Your task to perform on an android device: star an email in the gmail app Image 0: 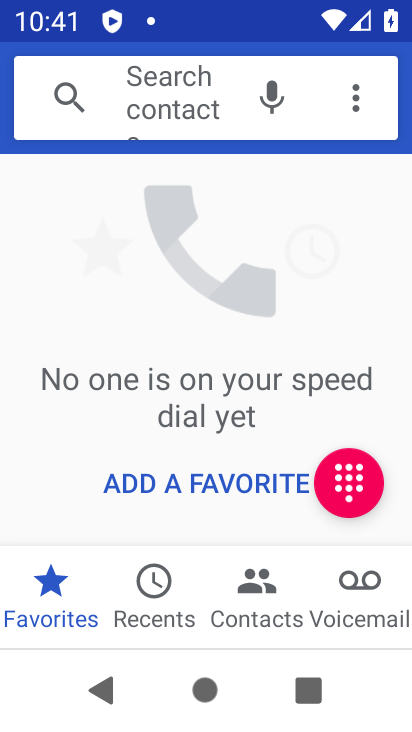
Step 0: press home button
Your task to perform on an android device: star an email in the gmail app Image 1: 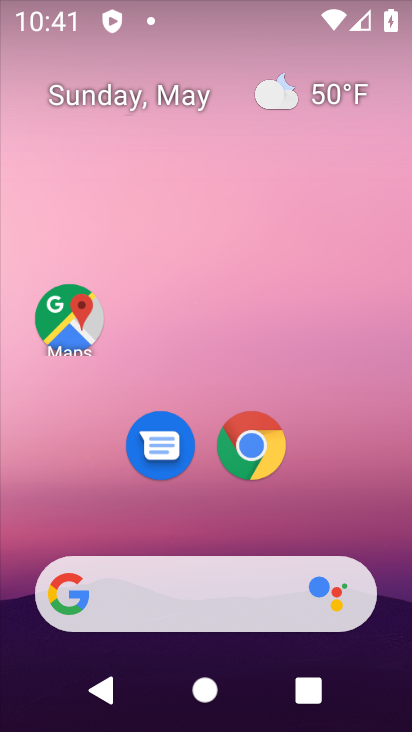
Step 1: drag from (242, 531) to (287, 93)
Your task to perform on an android device: star an email in the gmail app Image 2: 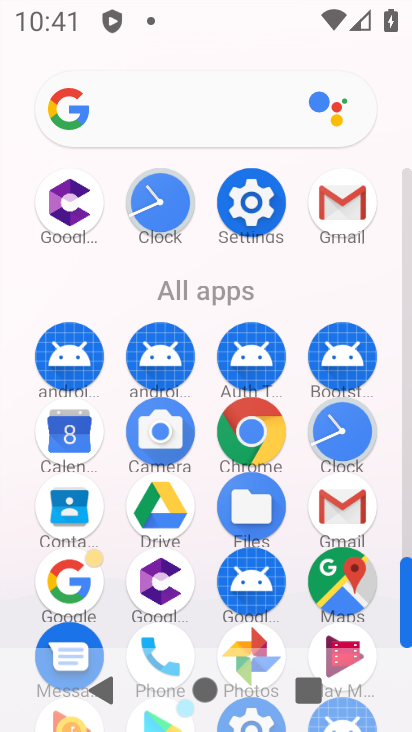
Step 2: click (351, 500)
Your task to perform on an android device: star an email in the gmail app Image 3: 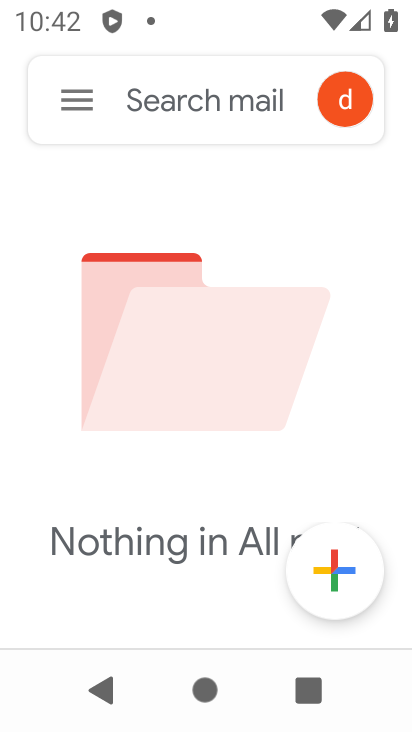
Step 3: click (70, 97)
Your task to perform on an android device: star an email in the gmail app Image 4: 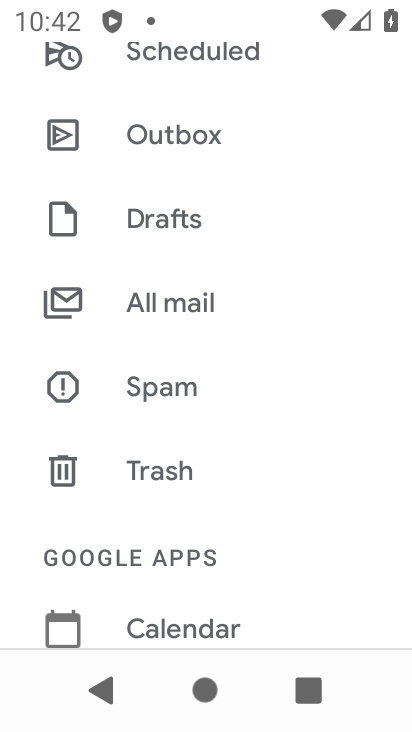
Step 4: click (184, 302)
Your task to perform on an android device: star an email in the gmail app Image 5: 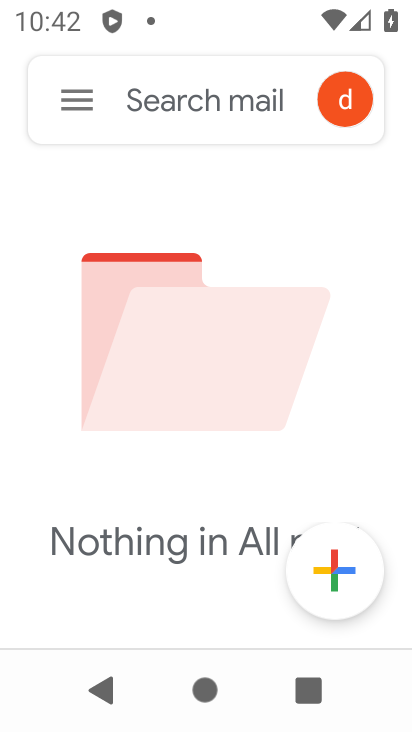
Step 5: task complete